Your task to perform on an android device: change notifications settings Image 0: 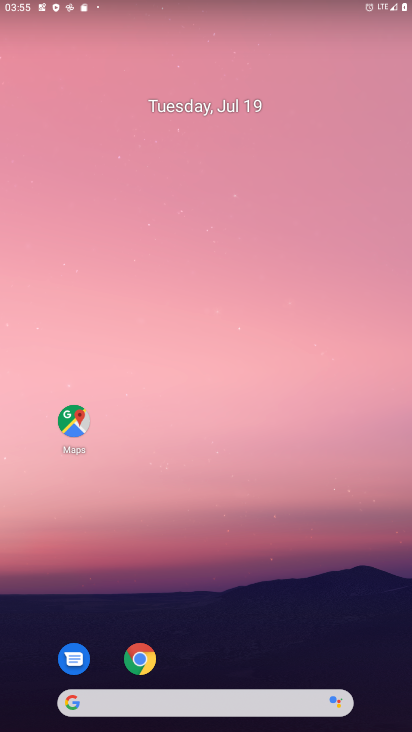
Step 0: press home button
Your task to perform on an android device: change notifications settings Image 1: 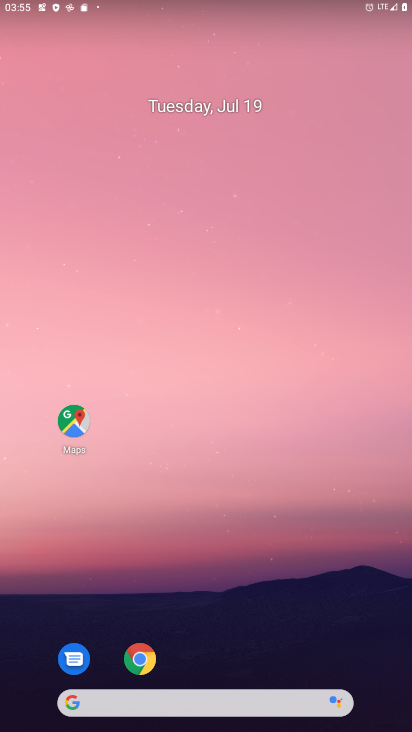
Step 1: drag from (255, 668) to (282, 1)
Your task to perform on an android device: change notifications settings Image 2: 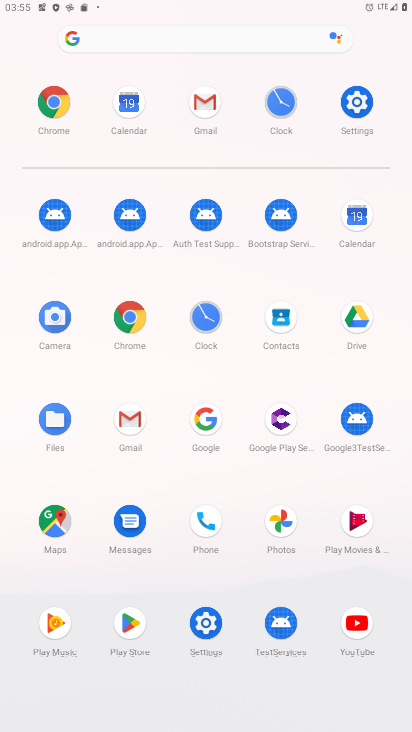
Step 2: click (208, 639)
Your task to perform on an android device: change notifications settings Image 3: 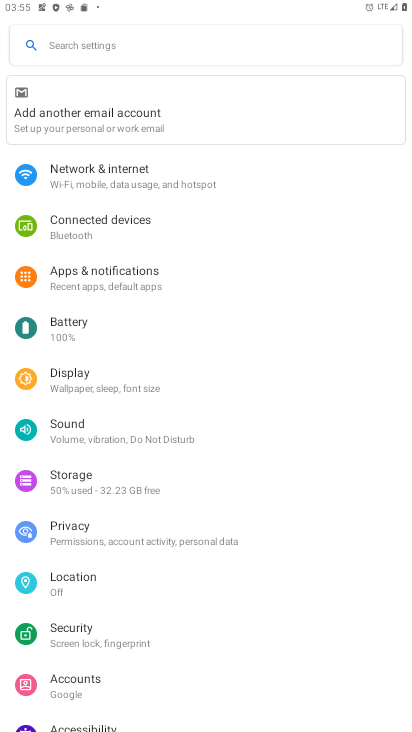
Step 3: click (130, 285)
Your task to perform on an android device: change notifications settings Image 4: 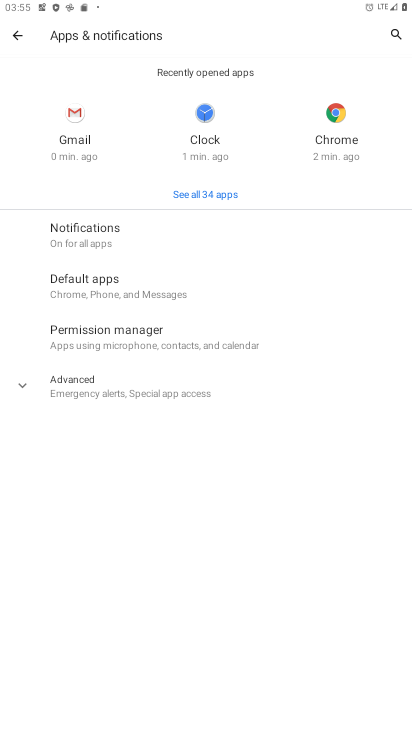
Step 4: click (113, 246)
Your task to perform on an android device: change notifications settings Image 5: 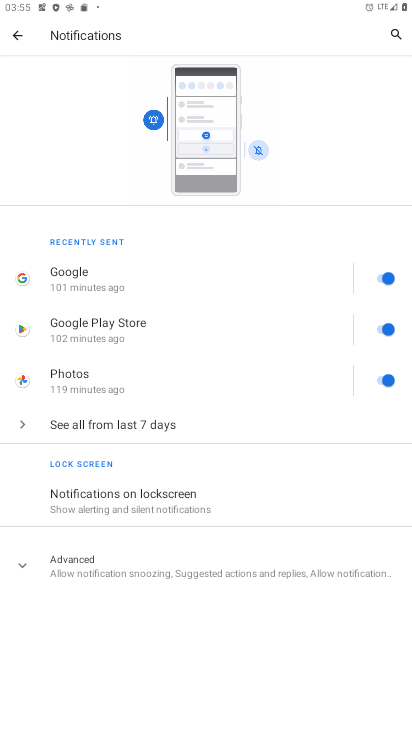
Step 5: click (109, 546)
Your task to perform on an android device: change notifications settings Image 6: 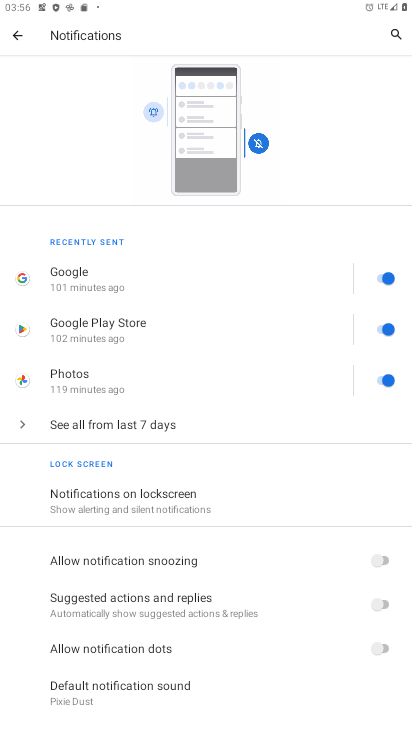
Step 6: click (319, 550)
Your task to perform on an android device: change notifications settings Image 7: 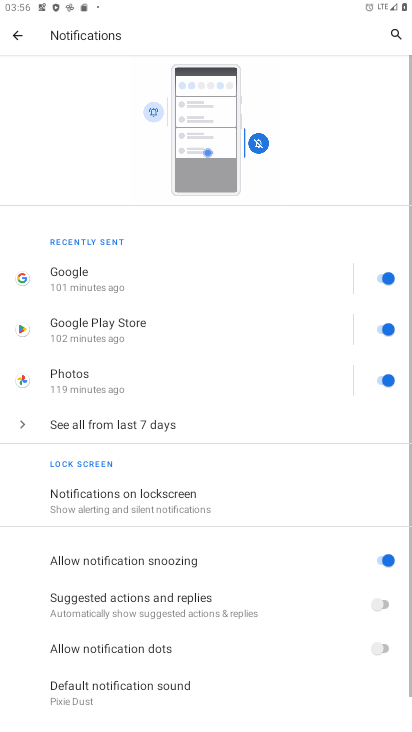
Step 7: click (295, 632)
Your task to perform on an android device: change notifications settings Image 8: 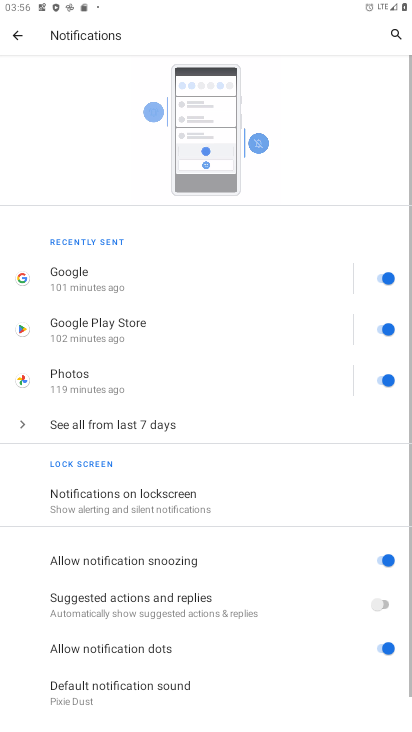
Step 8: click (272, 610)
Your task to perform on an android device: change notifications settings Image 9: 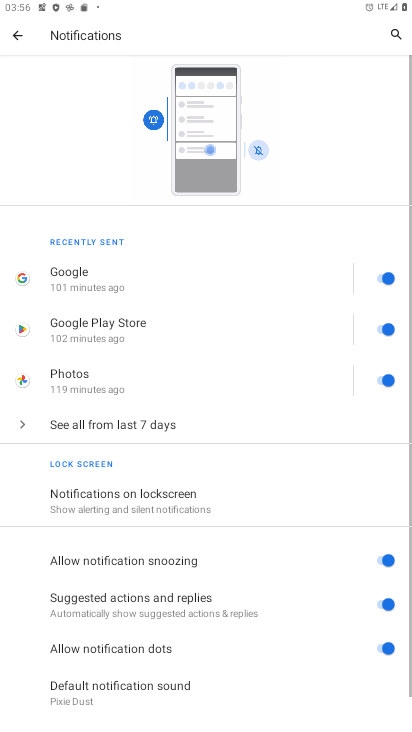
Step 9: task complete